Your task to perform on an android device: Search for sushi restaurants on Maps Image 0: 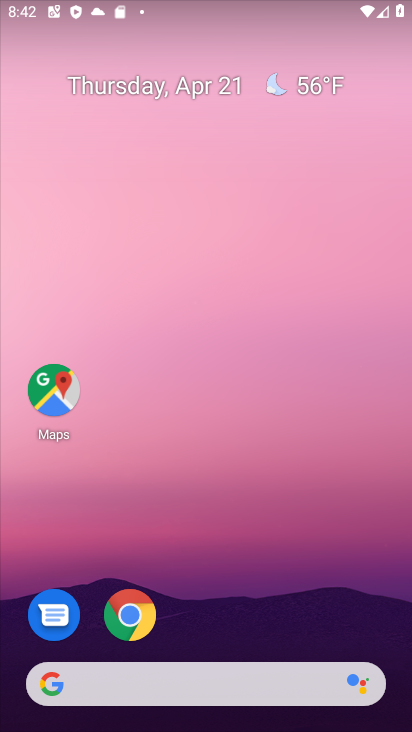
Step 0: click (55, 388)
Your task to perform on an android device: Search for sushi restaurants on Maps Image 1: 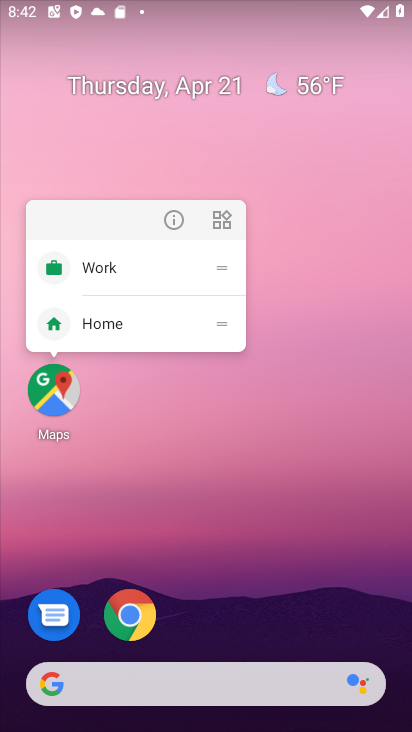
Step 1: click (235, 450)
Your task to perform on an android device: Search for sushi restaurants on Maps Image 2: 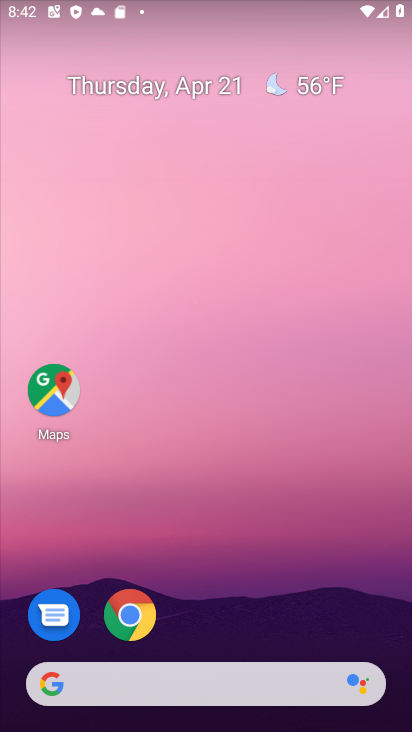
Step 2: click (50, 396)
Your task to perform on an android device: Search for sushi restaurants on Maps Image 3: 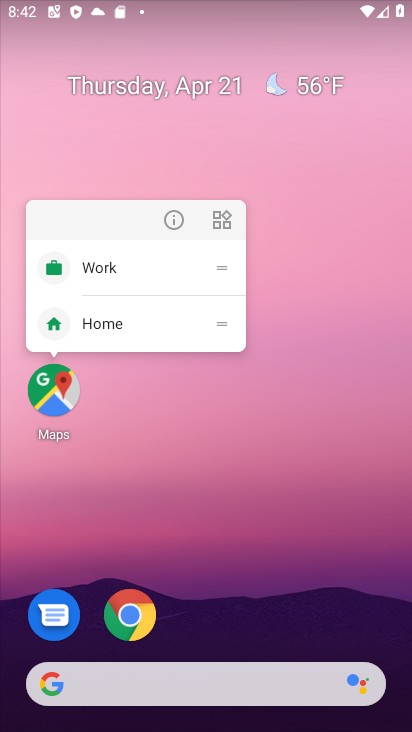
Step 3: click (215, 505)
Your task to perform on an android device: Search for sushi restaurants on Maps Image 4: 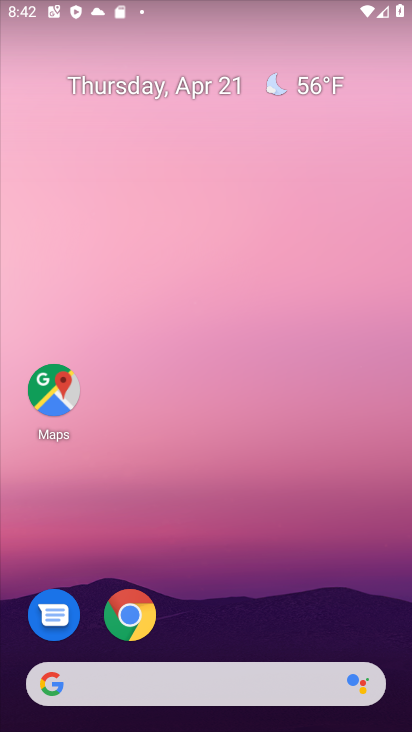
Step 4: click (49, 396)
Your task to perform on an android device: Search for sushi restaurants on Maps Image 5: 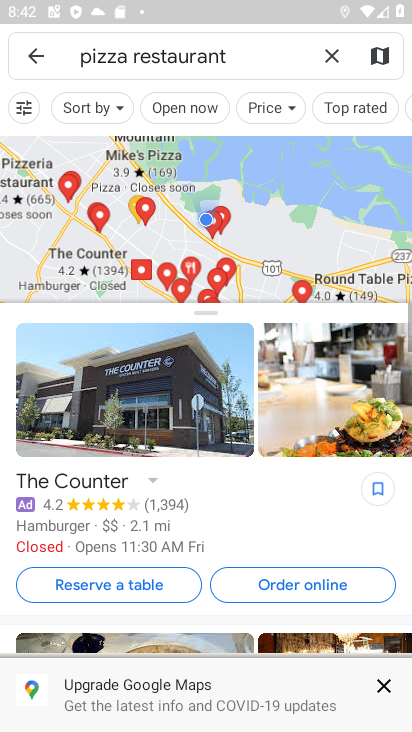
Step 5: click (333, 57)
Your task to perform on an android device: Search for sushi restaurants on Maps Image 6: 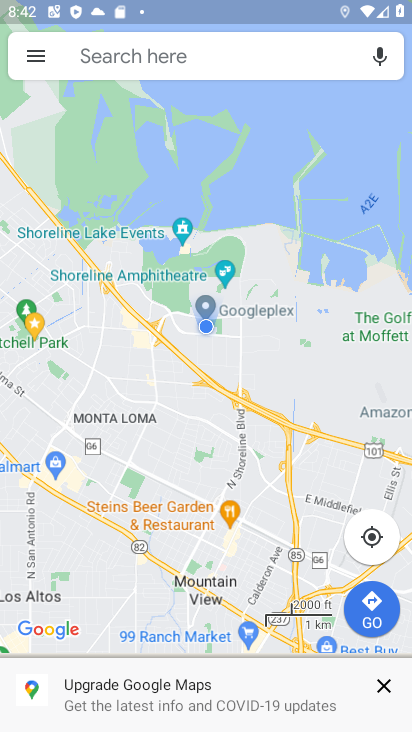
Step 6: click (206, 63)
Your task to perform on an android device: Search for sushi restaurants on Maps Image 7: 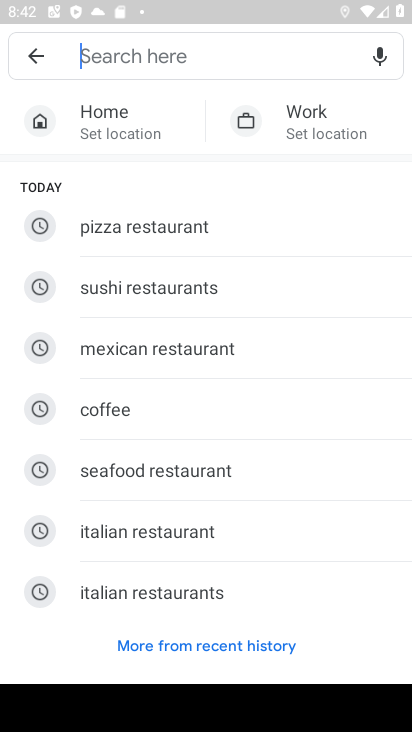
Step 7: click (161, 285)
Your task to perform on an android device: Search for sushi restaurants on Maps Image 8: 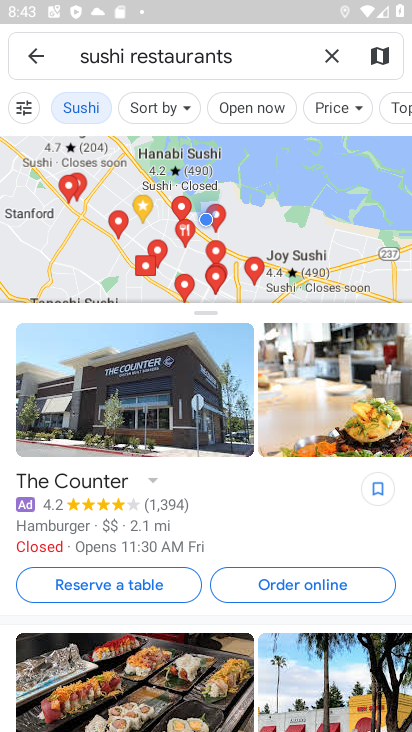
Step 8: task complete